Your task to perform on an android device: toggle pop-ups in chrome Image 0: 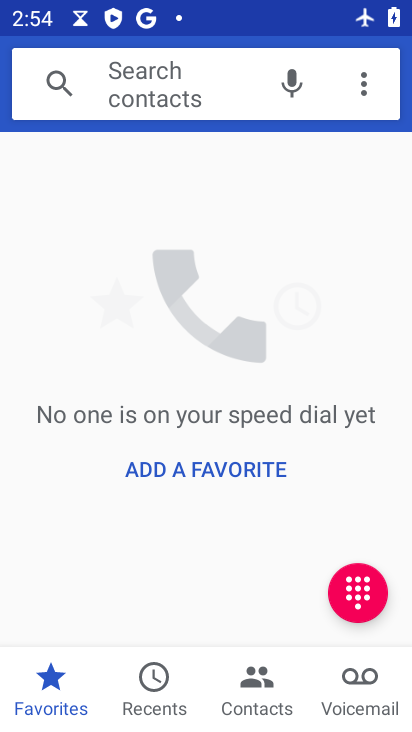
Step 0: press home button
Your task to perform on an android device: toggle pop-ups in chrome Image 1: 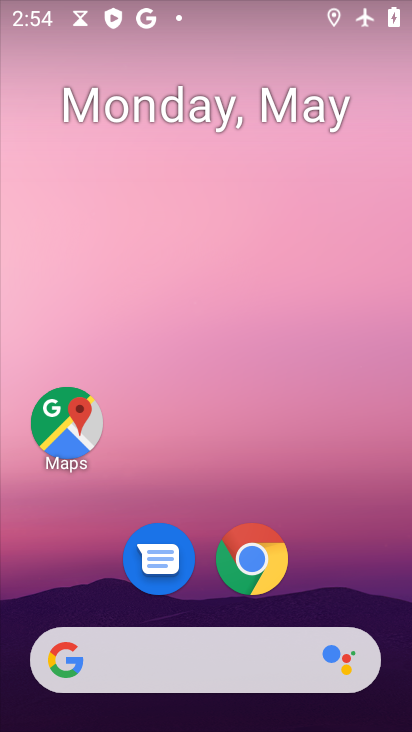
Step 1: click (256, 565)
Your task to perform on an android device: toggle pop-ups in chrome Image 2: 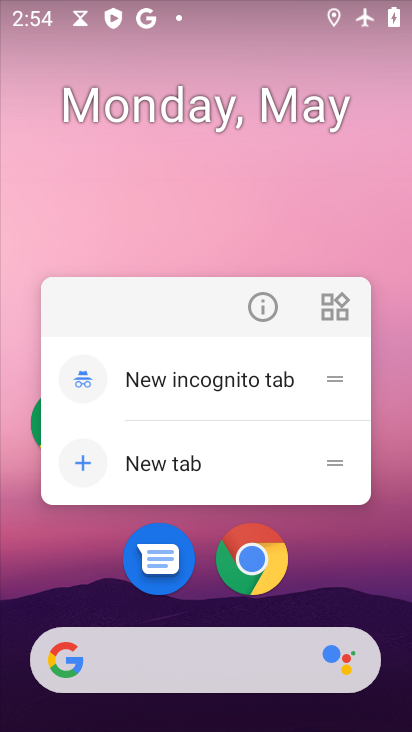
Step 2: click (256, 565)
Your task to perform on an android device: toggle pop-ups in chrome Image 3: 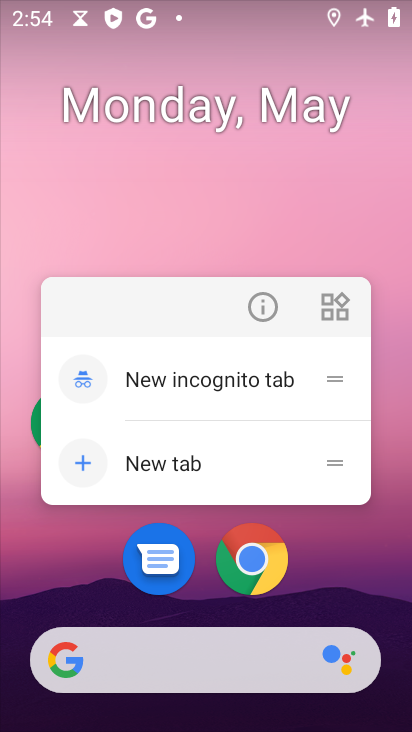
Step 3: click (256, 565)
Your task to perform on an android device: toggle pop-ups in chrome Image 4: 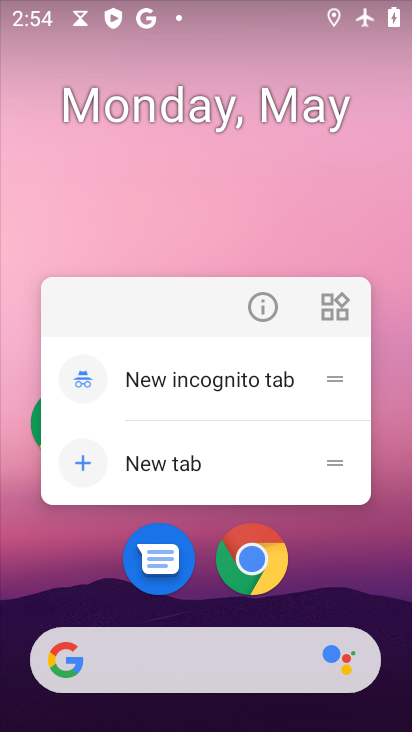
Step 4: click (256, 565)
Your task to perform on an android device: toggle pop-ups in chrome Image 5: 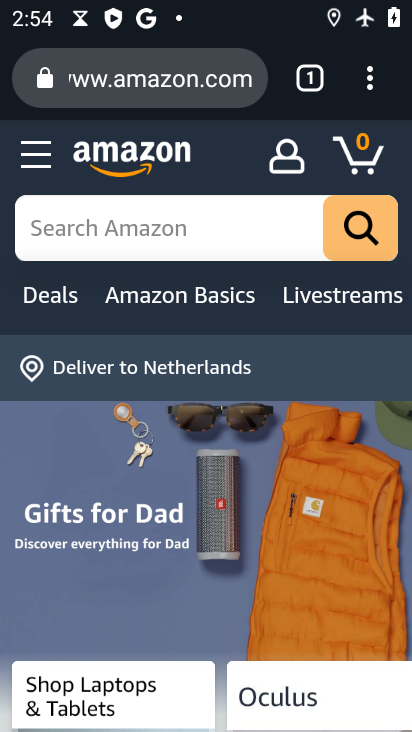
Step 5: click (373, 74)
Your task to perform on an android device: toggle pop-ups in chrome Image 6: 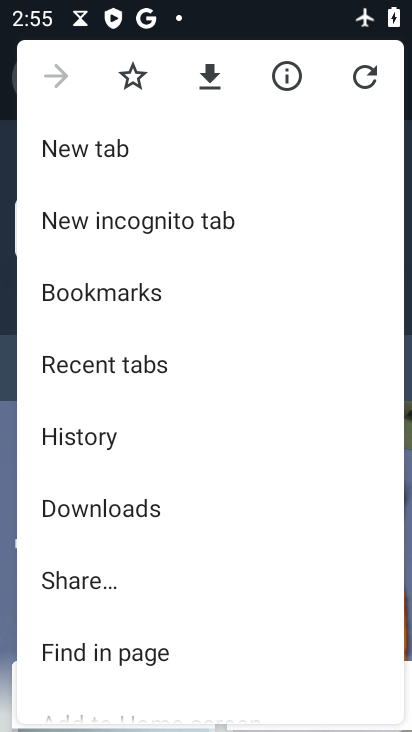
Step 6: drag from (152, 632) to (145, 168)
Your task to perform on an android device: toggle pop-ups in chrome Image 7: 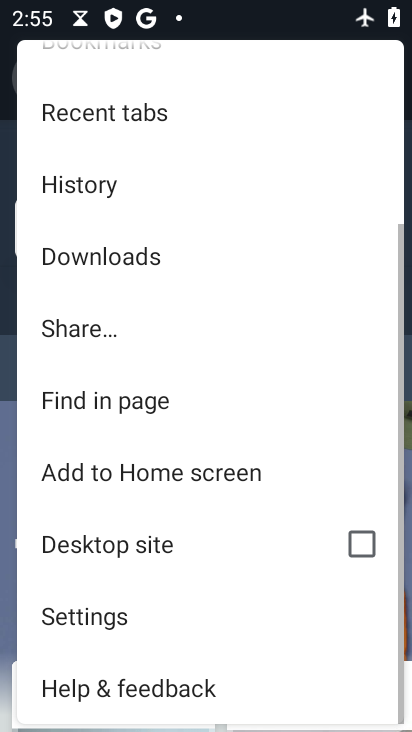
Step 7: click (131, 598)
Your task to perform on an android device: toggle pop-ups in chrome Image 8: 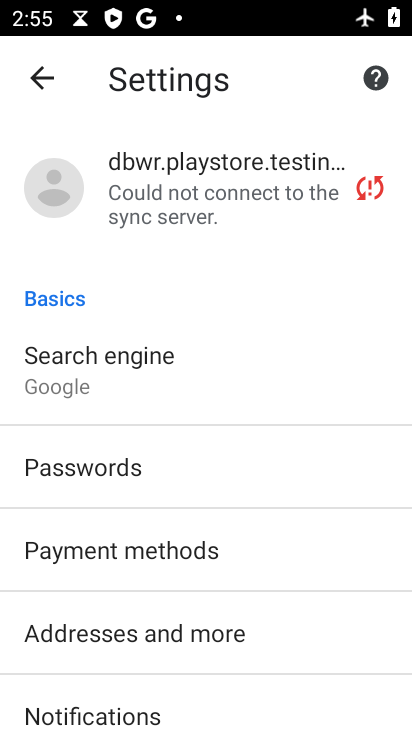
Step 8: drag from (176, 646) to (175, 215)
Your task to perform on an android device: toggle pop-ups in chrome Image 9: 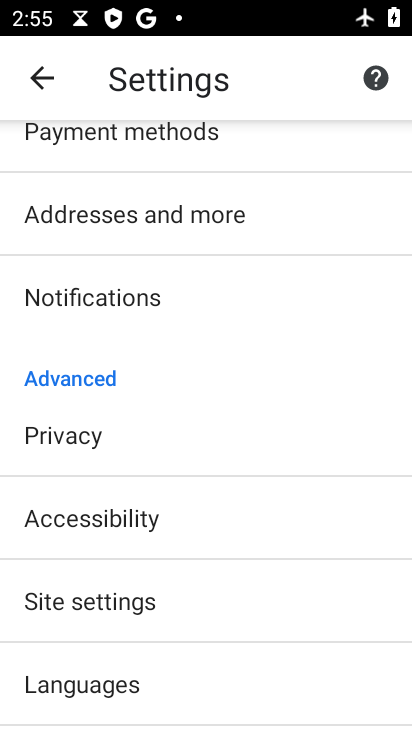
Step 9: click (122, 616)
Your task to perform on an android device: toggle pop-ups in chrome Image 10: 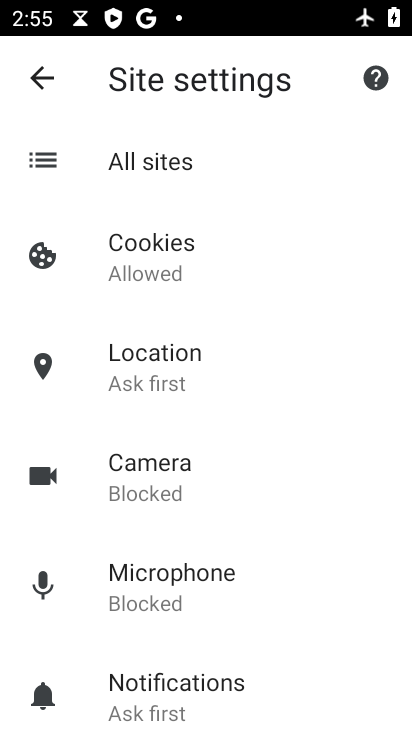
Step 10: drag from (209, 700) to (187, 313)
Your task to perform on an android device: toggle pop-ups in chrome Image 11: 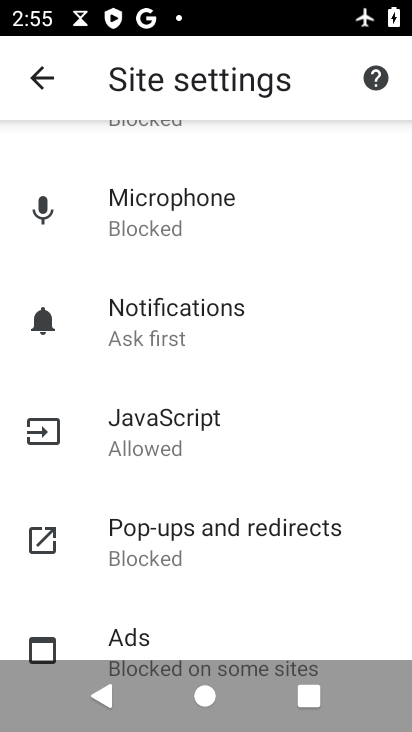
Step 11: click (191, 556)
Your task to perform on an android device: toggle pop-ups in chrome Image 12: 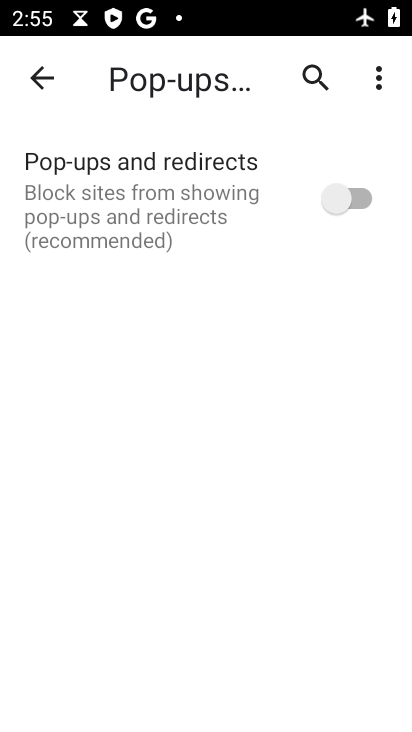
Step 12: click (334, 199)
Your task to perform on an android device: toggle pop-ups in chrome Image 13: 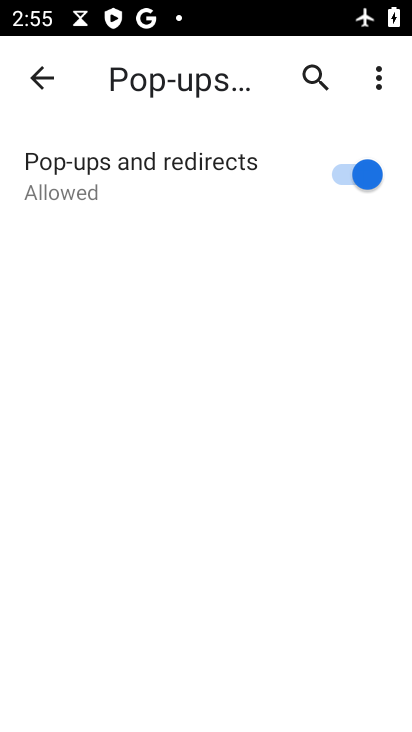
Step 13: task complete